Your task to perform on an android device: toggle show notifications on the lock screen Image 0: 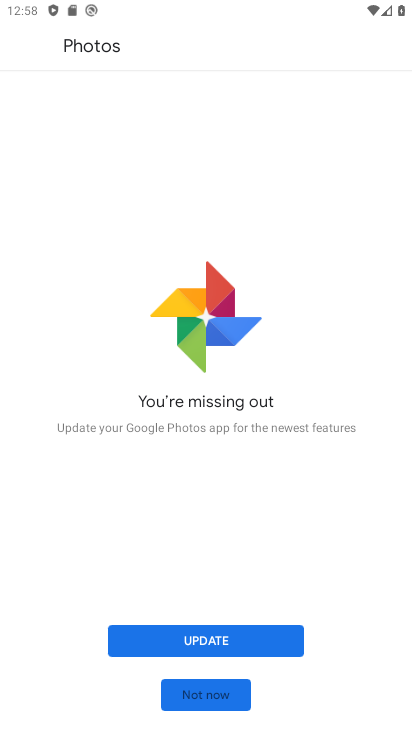
Step 0: press home button
Your task to perform on an android device: toggle show notifications on the lock screen Image 1: 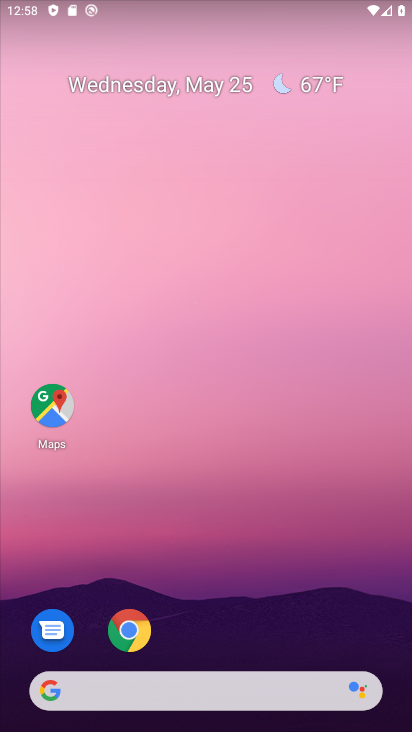
Step 1: drag from (197, 654) to (210, 110)
Your task to perform on an android device: toggle show notifications on the lock screen Image 2: 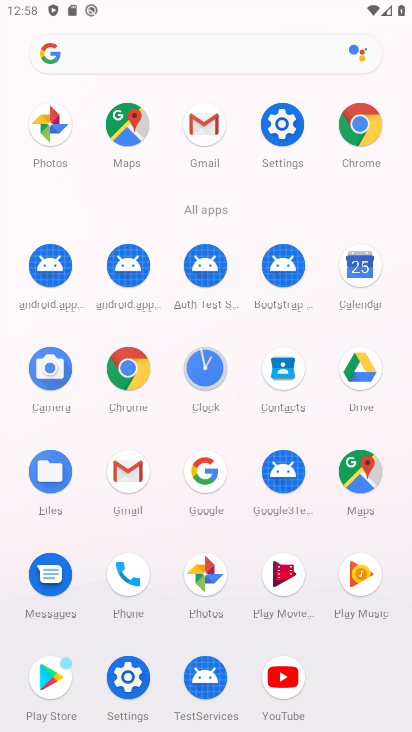
Step 2: click (284, 122)
Your task to perform on an android device: toggle show notifications on the lock screen Image 3: 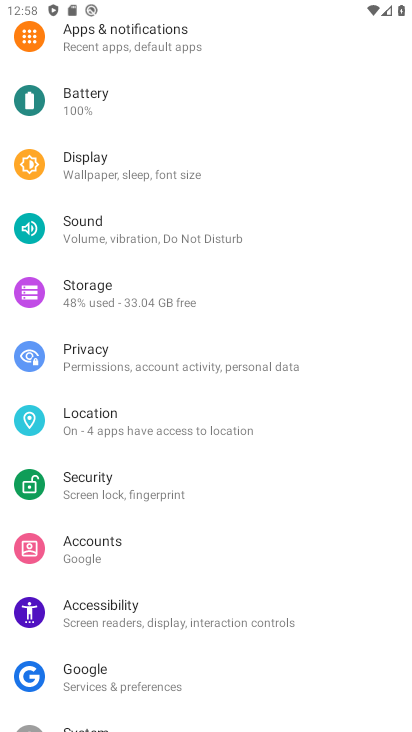
Step 3: click (134, 41)
Your task to perform on an android device: toggle show notifications on the lock screen Image 4: 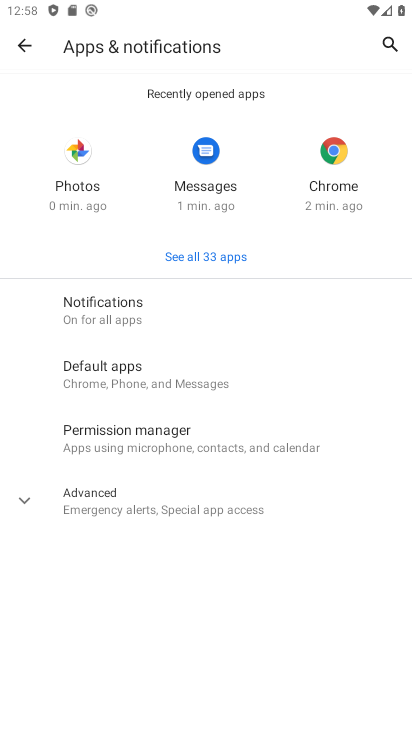
Step 4: click (150, 301)
Your task to perform on an android device: toggle show notifications on the lock screen Image 5: 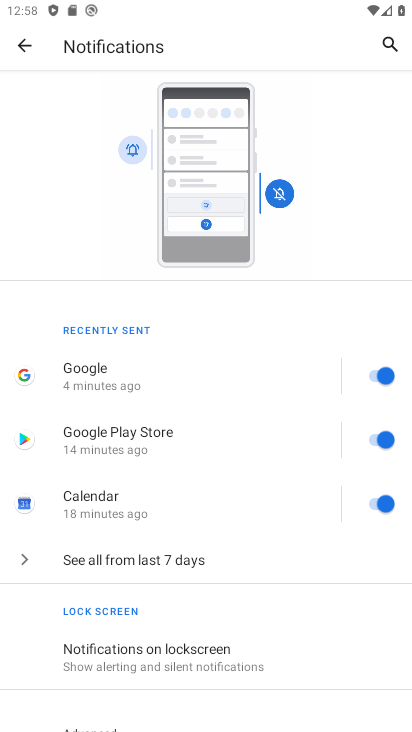
Step 5: click (213, 658)
Your task to perform on an android device: toggle show notifications on the lock screen Image 6: 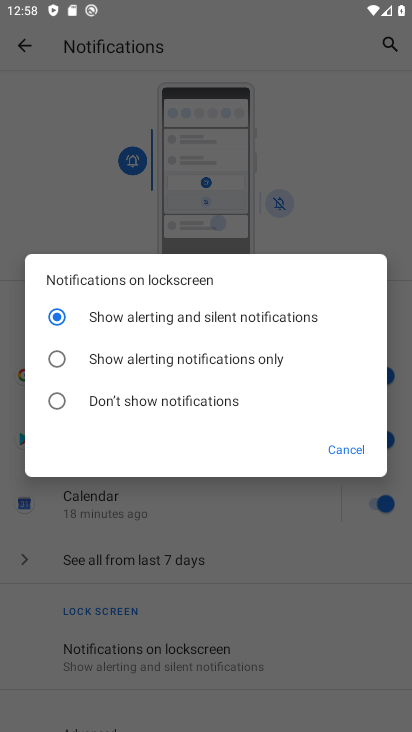
Step 6: click (53, 360)
Your task to perform on an android device: toggle show notifications on the lock screen Image 7: 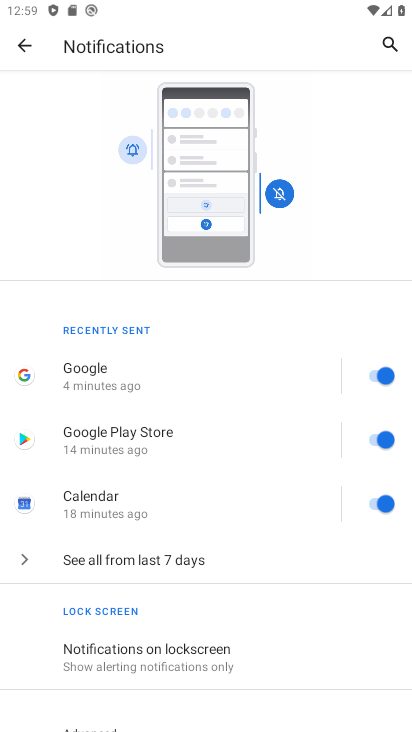
Step 7: drag from (219, 610) to (235, 317)
Your task to perform on an android device: toggle show notifications on the lock screen Image 8: 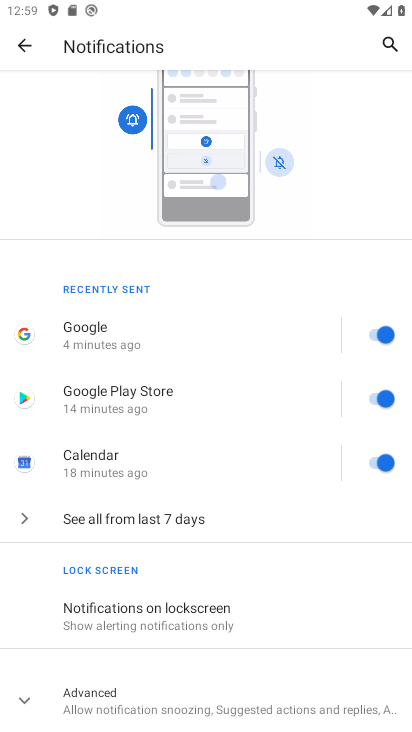
Step 8: drag from (212, 595) to (228, 317)
Your task to perform on an android device: toggle show notifications on the lock screen Image 9: 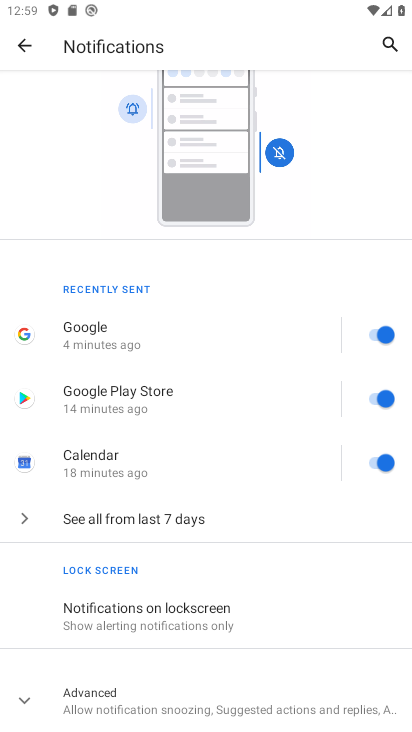
Step 9: click (25, 692)
Your task to perform on an android device: toggle show notifications on the lock screen Image 10: 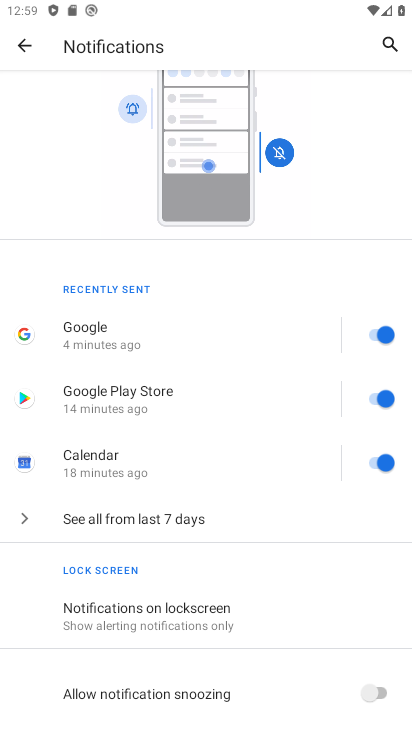
Step 10: task complete